Your task to perform on an android device: empty trash in the gmail app Image 0: 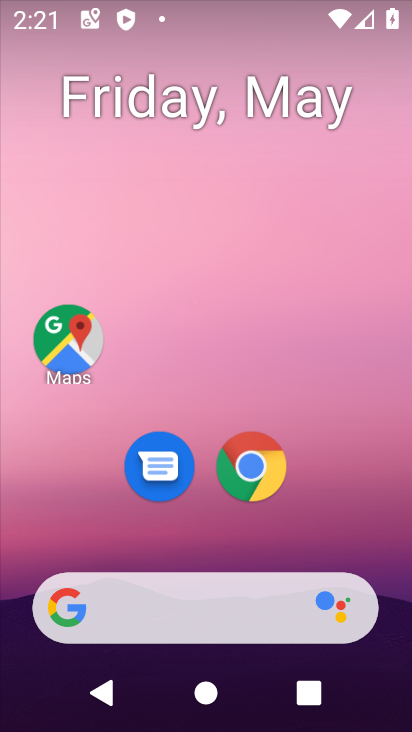
Step 0: drag from (184, 423) to (328, 72)
Your task to perform on an android device: empty trash in the gmail app Image 1: 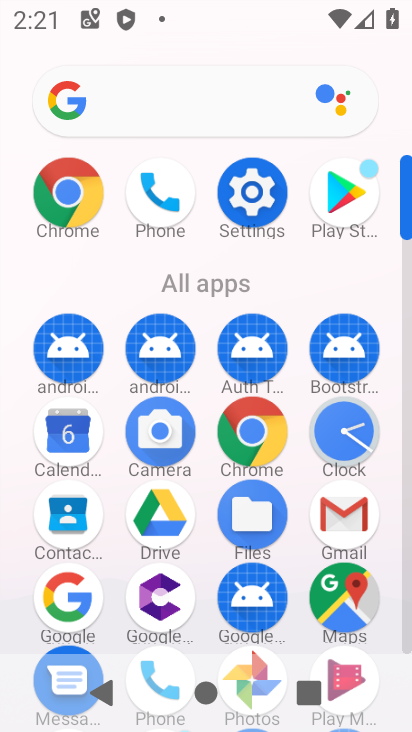
Step 1: drag from (200, 546) to (268, 134)
Your task to perform on an android device: empty trash in the gmail app Image 2: 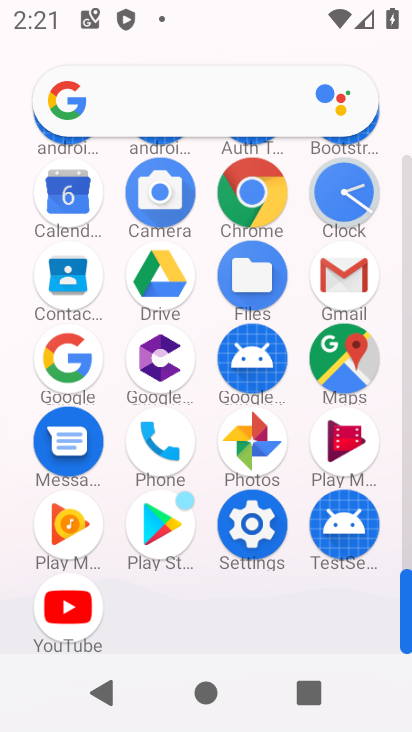
Step 2: click (334, 276)
Your task to perform on an android device: empty trash in the gmail app Image 3: 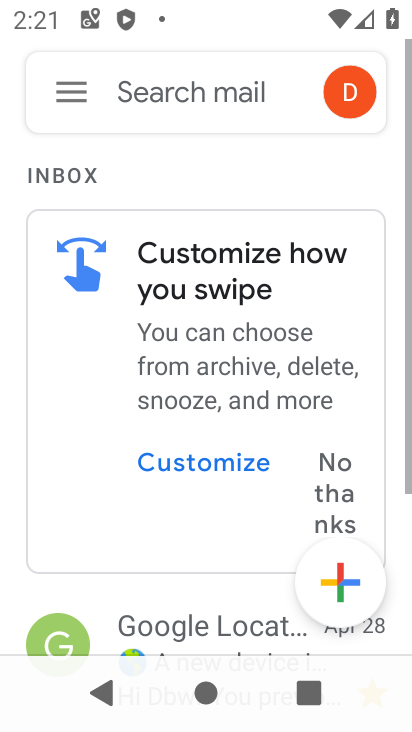
Step 3: click (76, 96)
Your task to perform on an android device: empty trash in the gmail app Image 4: 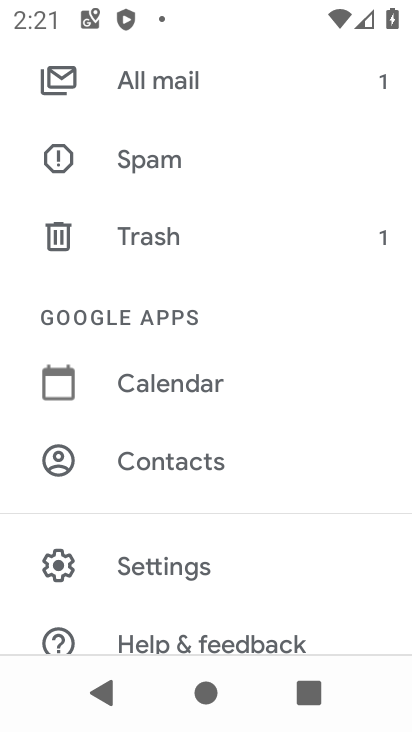
Step 4: click (152, 245)
Your task to perform on an android device: empty trash in the gmail app Image 5: 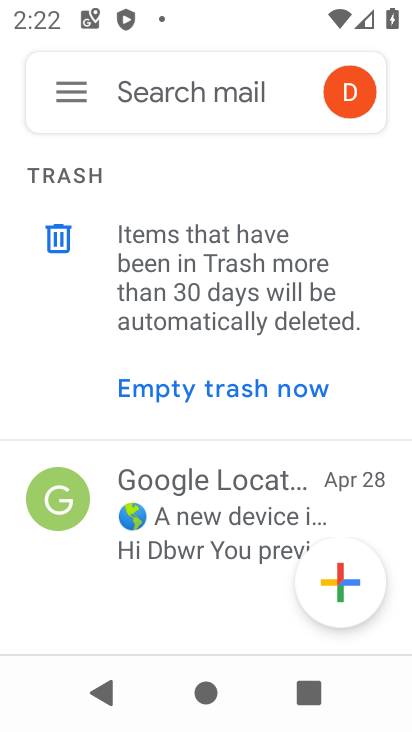
Step 5: click (197, 395)
Your task to perform on an android device: empty trash in the gmail app Image 6: 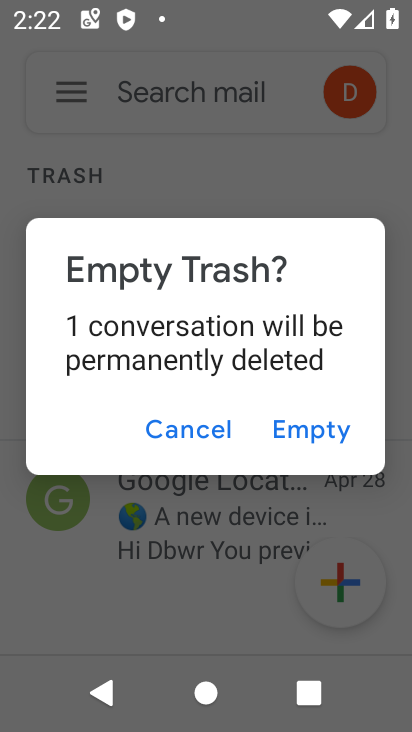
Step 6: click (320, 431)
Your task to perform on an android device: empty trash in the gmail app Image 7: 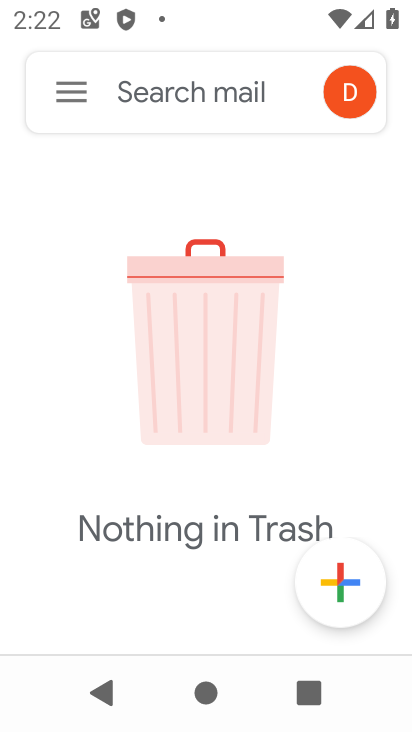
Step 7: task complete